Your task to perform on an android device: Open Google Chrome Image 0: 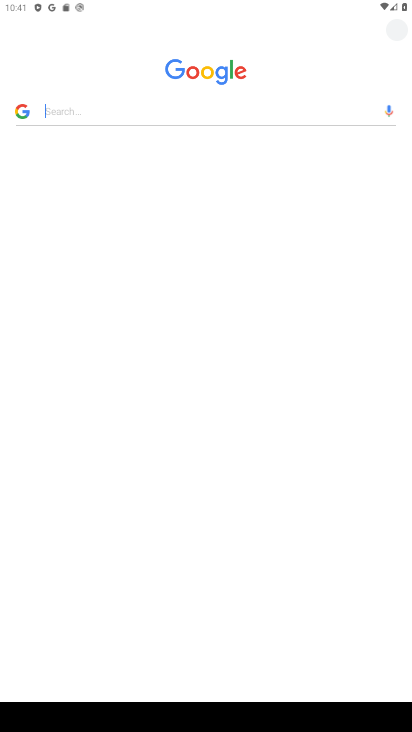
Step 0: press home button
Your task to perform on an android device: Open Google Chrome Image 1: 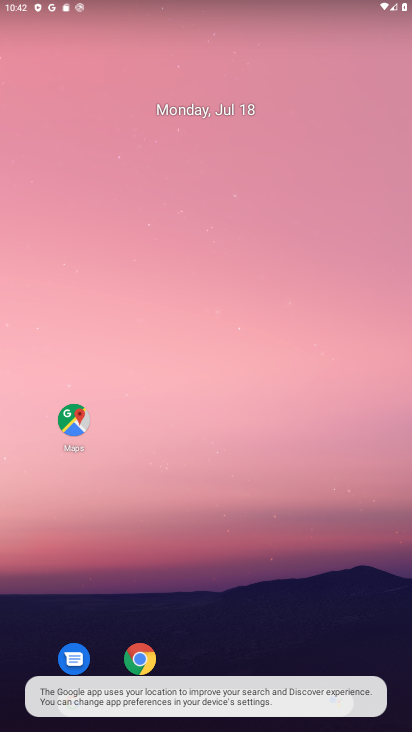
Step 1: click (136, 658)
Your task to perform on an android device: Open Google Chrome Image 2: 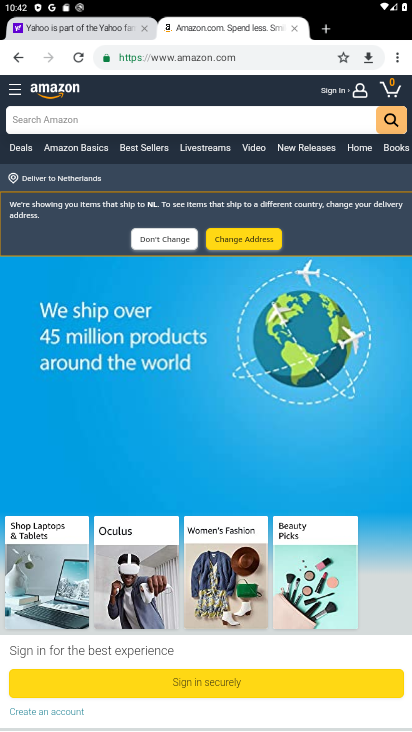
Step 2: task complete